Your task to perform on an android device: open app "VLC for Android" (install if not already installed), go to login, and select forgot password Image 0: 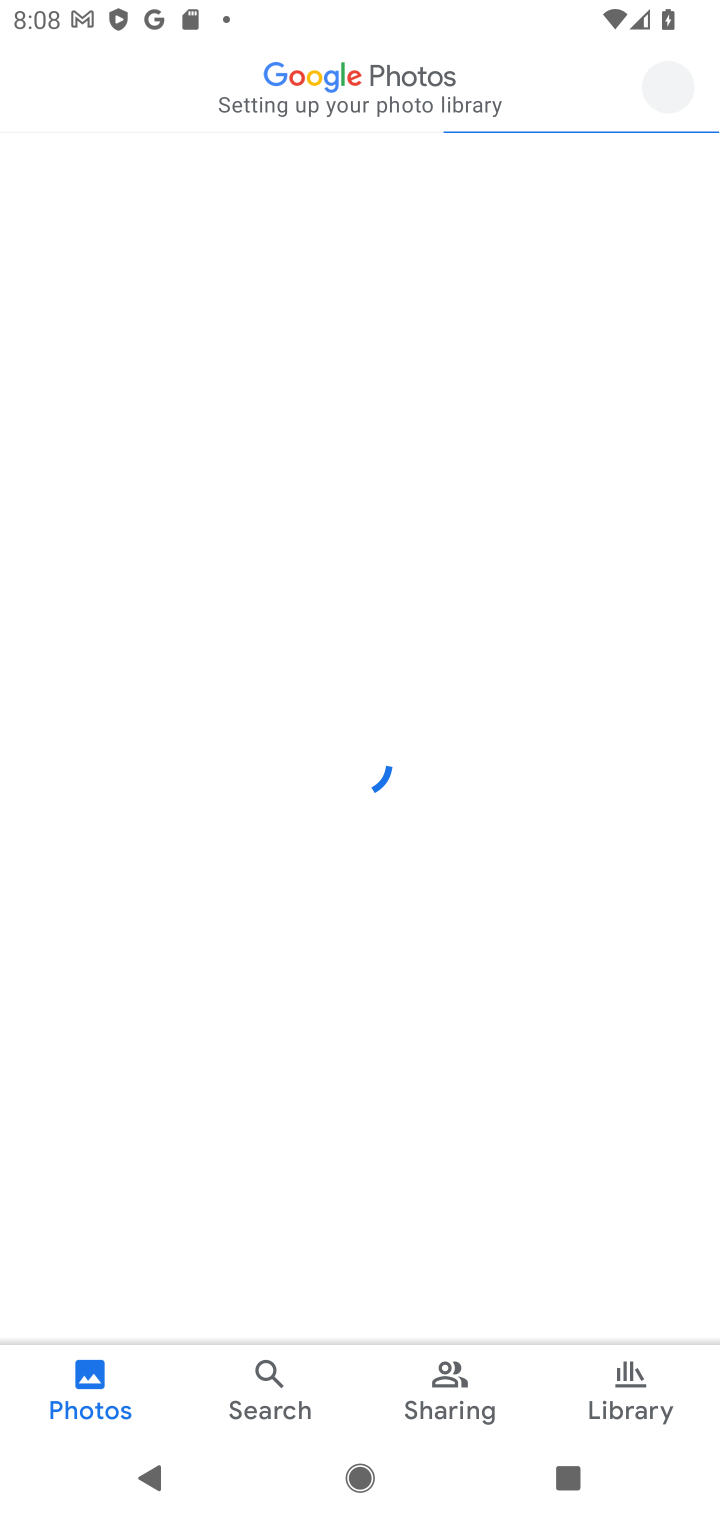
Step 0: press home button
Your task to perform on an android device: open app "VLC for Android" (install if not already installed), go to login, and select forgot password Image 1: 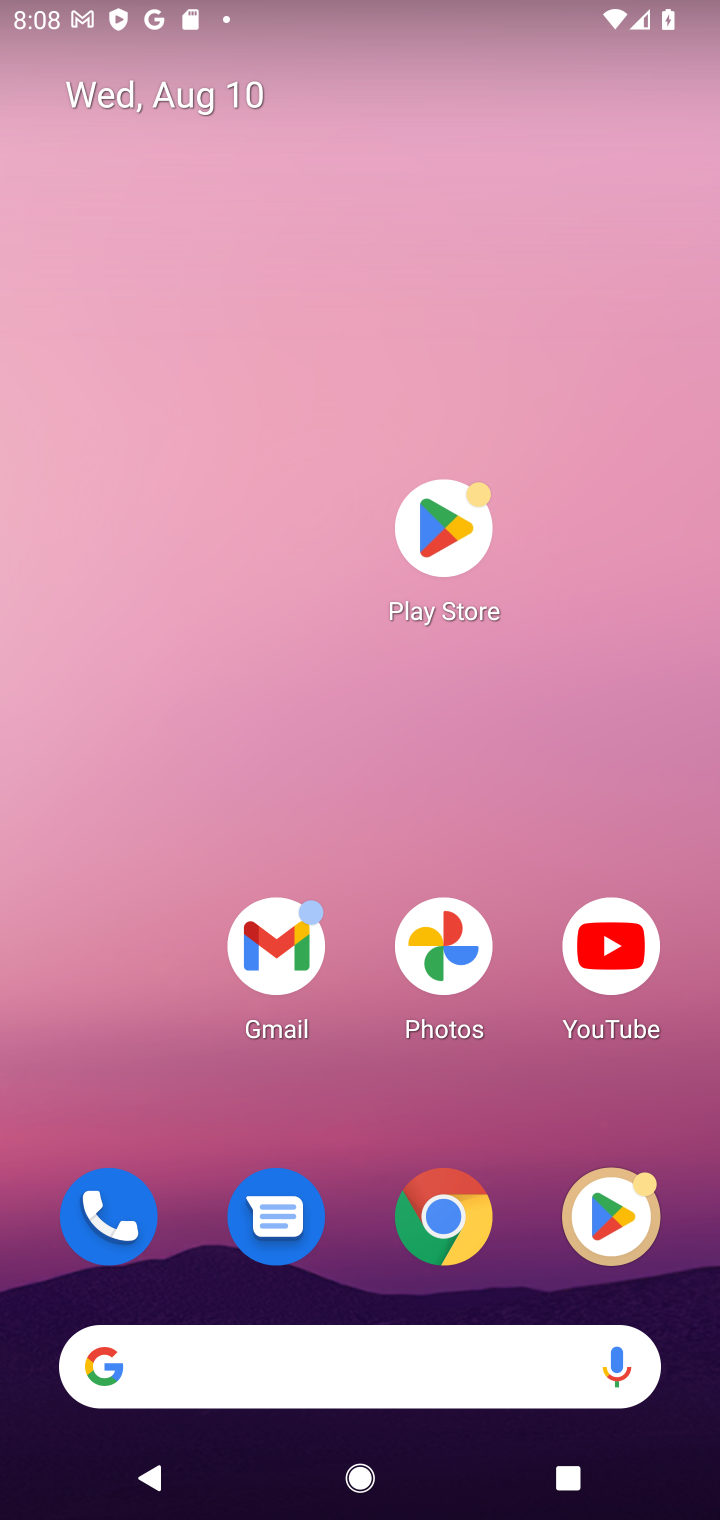
Step 1: click (447, 528)
Your task to perform on an android device: open app "VLC for Android" (install if not already installed), go to login, and select forgot password Image 2: 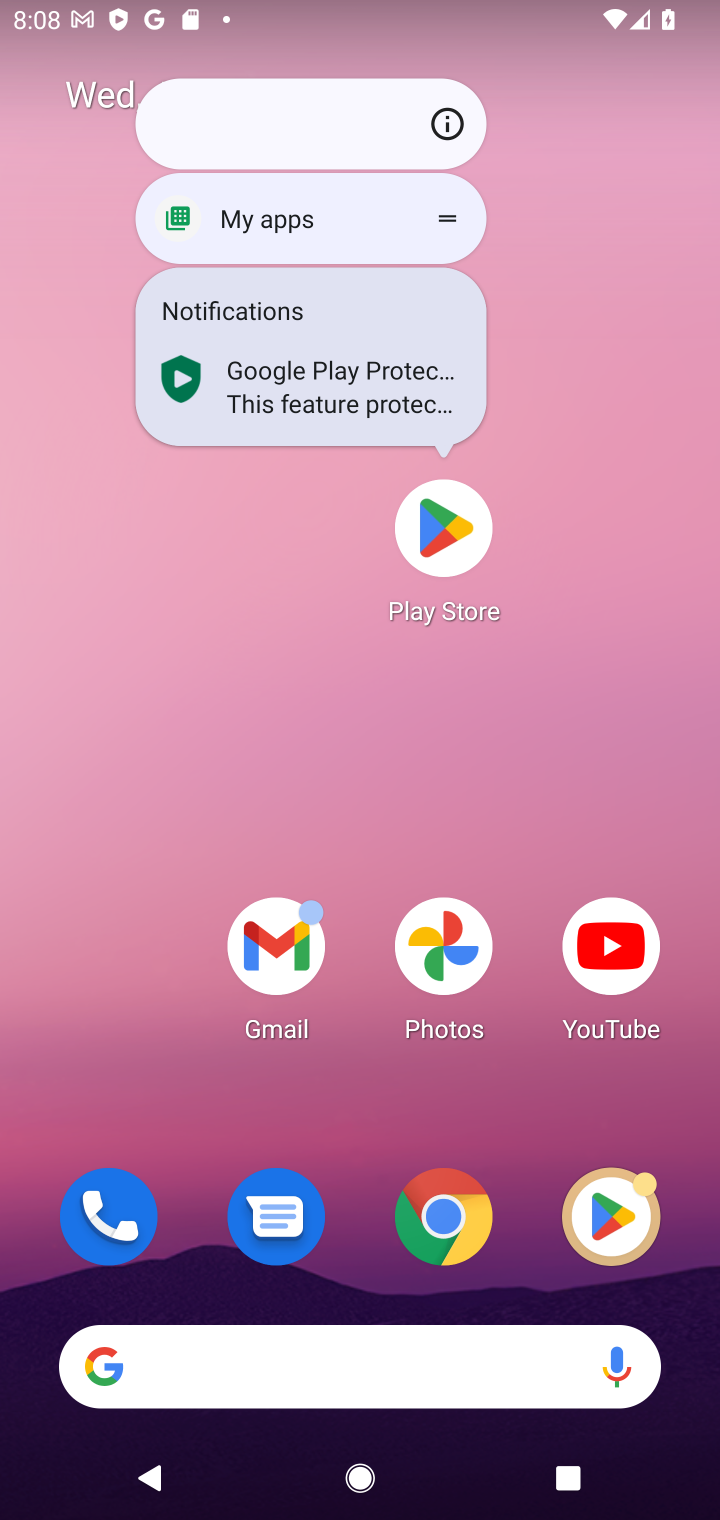
Step 2: click (617, 1214)
Your task to perform on an android device: open app "VLC for Android" (install if not already installed), go to login, and select forgot password Image 3: 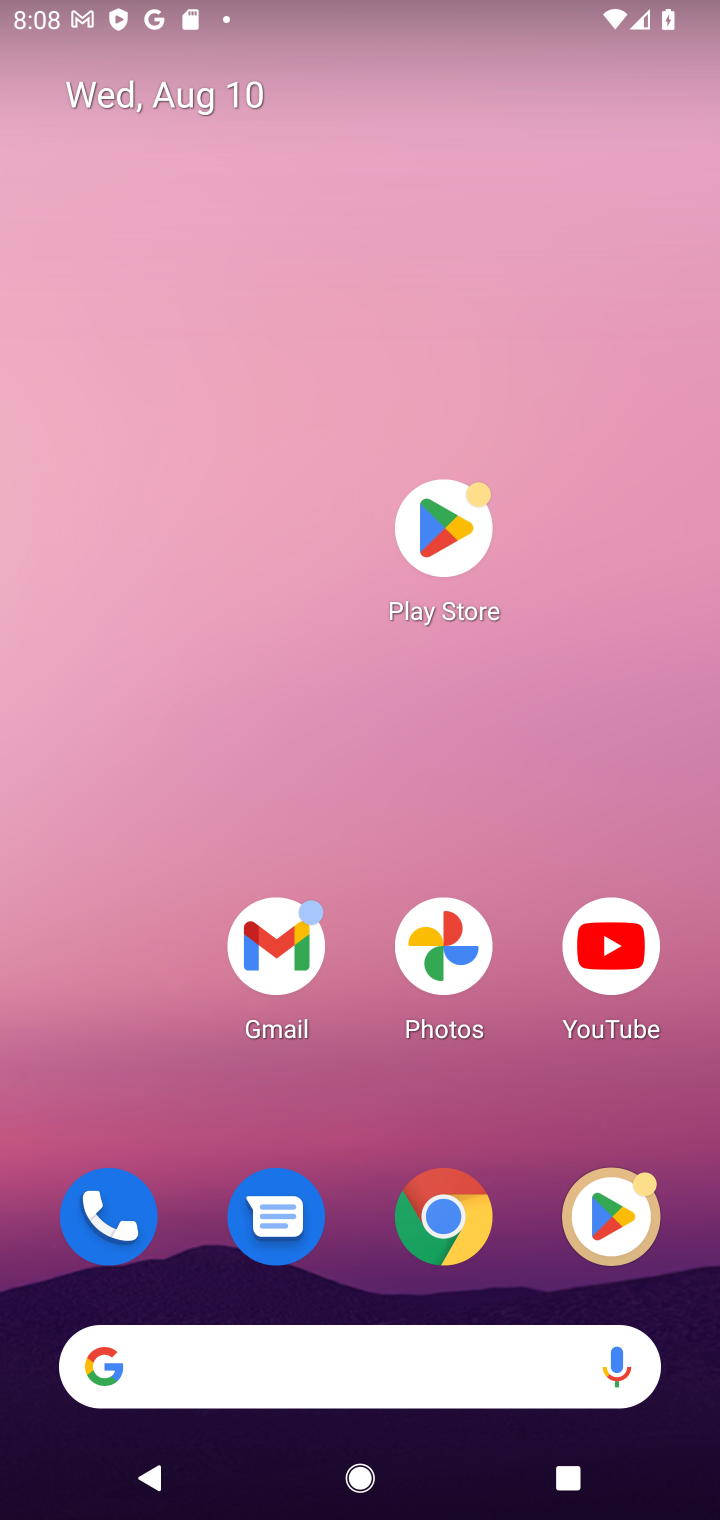
Step 3: click (608, 1221)
Your task to perform on an android device: open app "VLC for Android" (install if not already installed), go to login, and select forgot password Image 4: 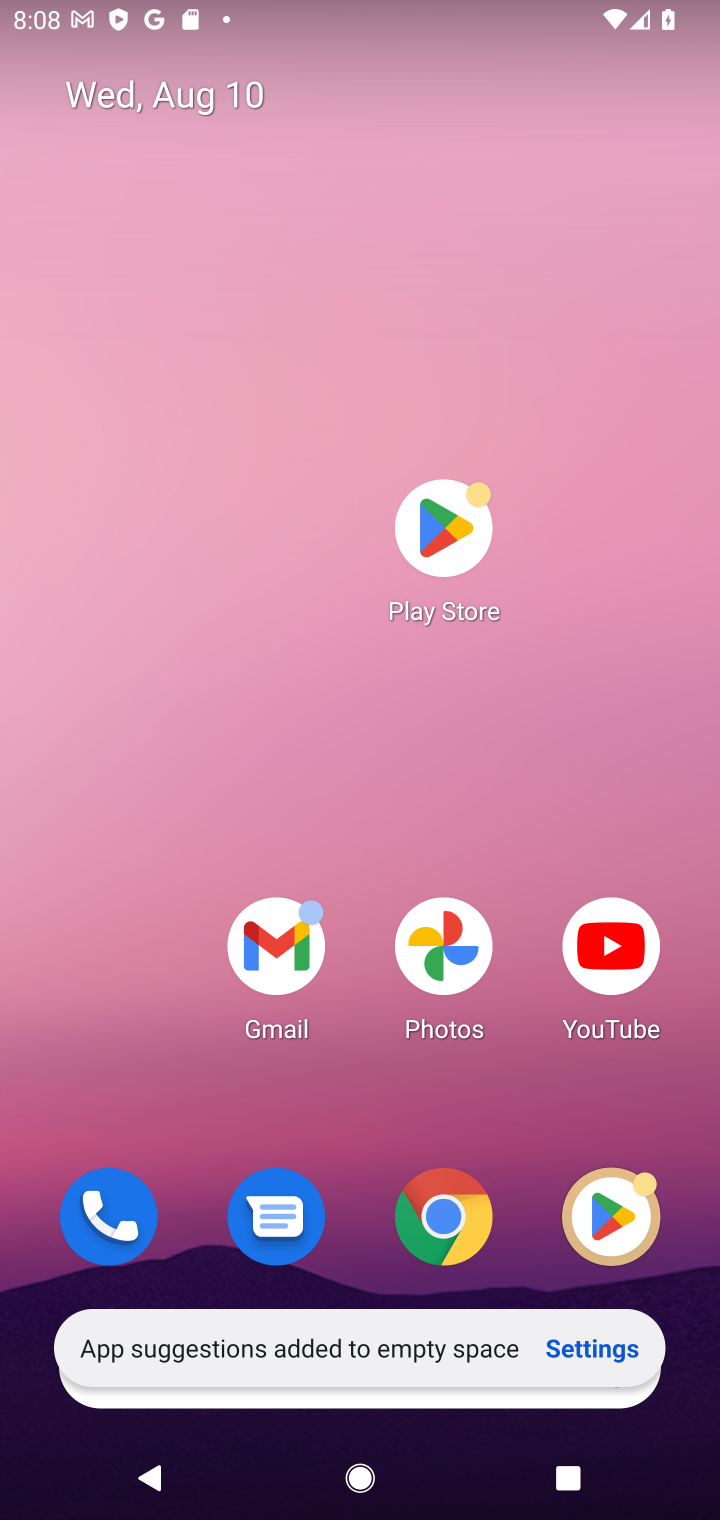
Step 4: click (608, 1223)
Your task to perform on an android device: open app "VLC for Android" (install if not already installed), go to login, and select forgot password Image 5: 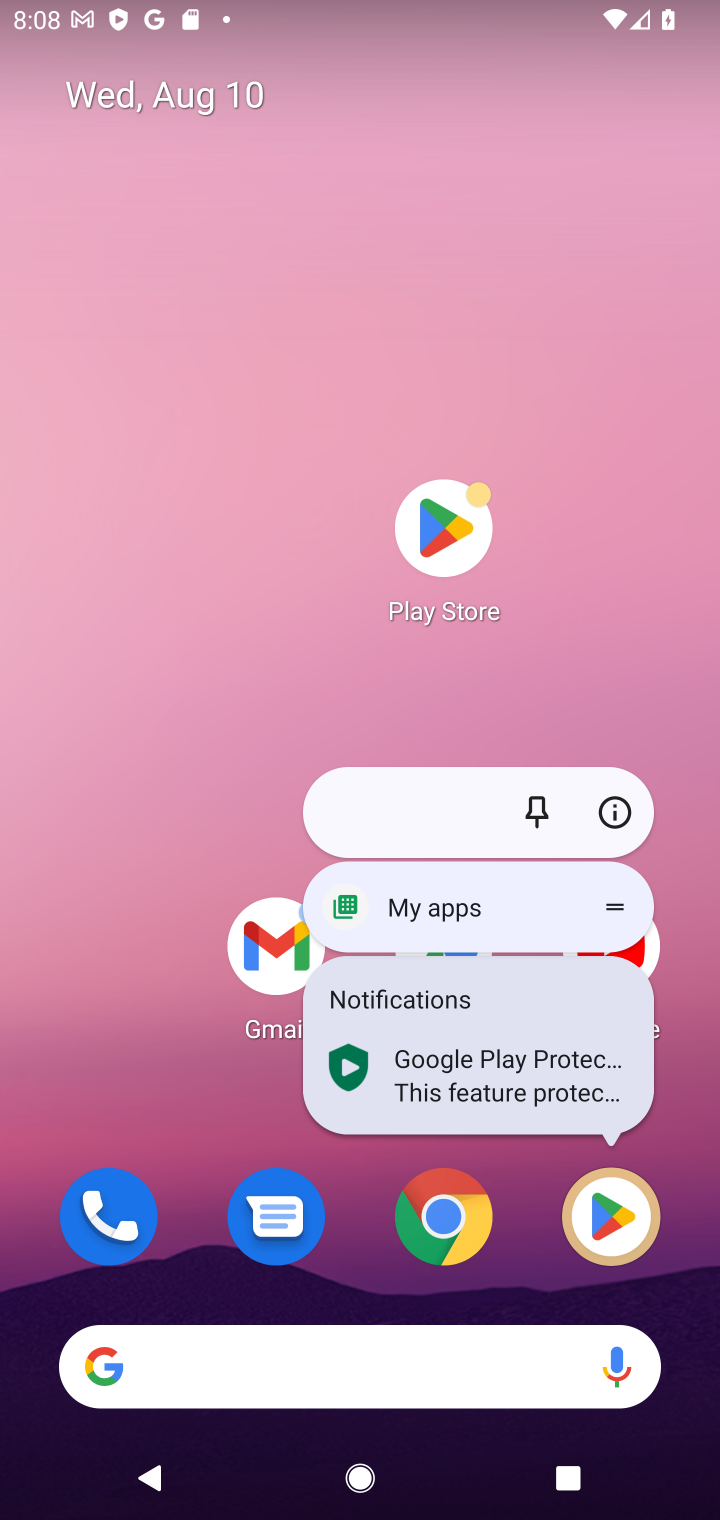
Step 5: click (608, 1223)
Your task to perform on an android device: open app "VLC for Android" (install if not already installed), go to login, and select forgot password Image 6: 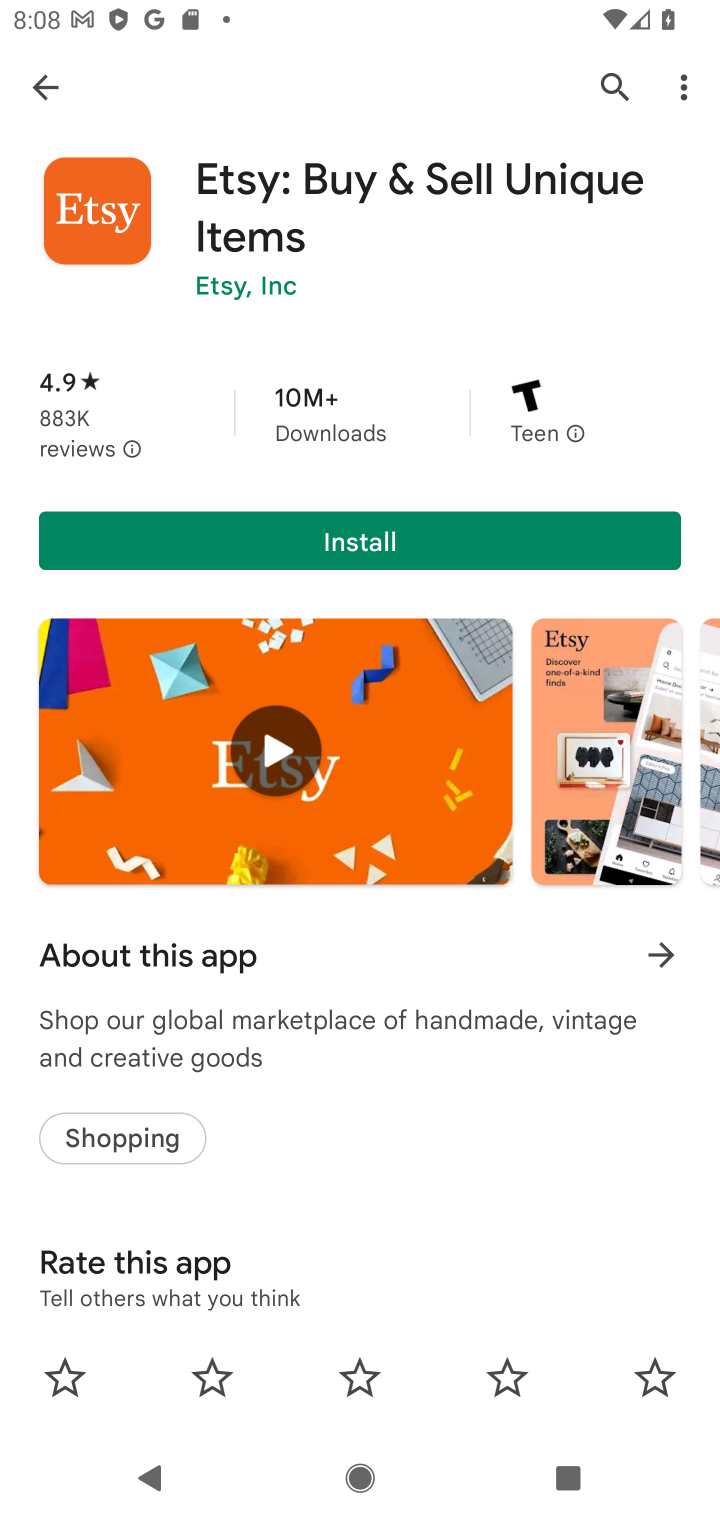
Step 6: click (631, 88)
Your task to perform on an android device: open app "VLC for Android" (install if not already installed), go to login, and select forgot password Image 7: 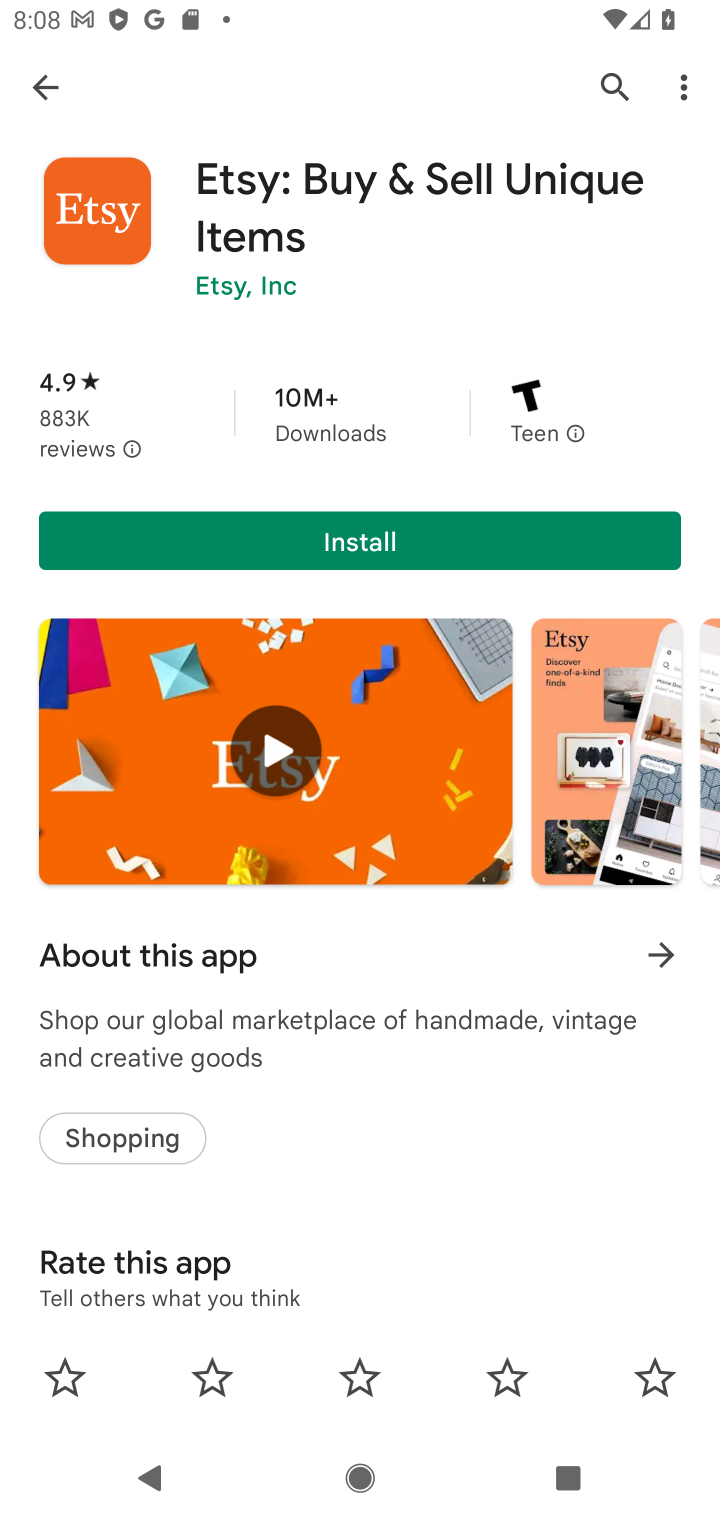
Step 7: click (606, 79)
Your task to perform on an android device: open app "VLC for Android" (install if not already installed), go to login, and select forgot password Image 8: 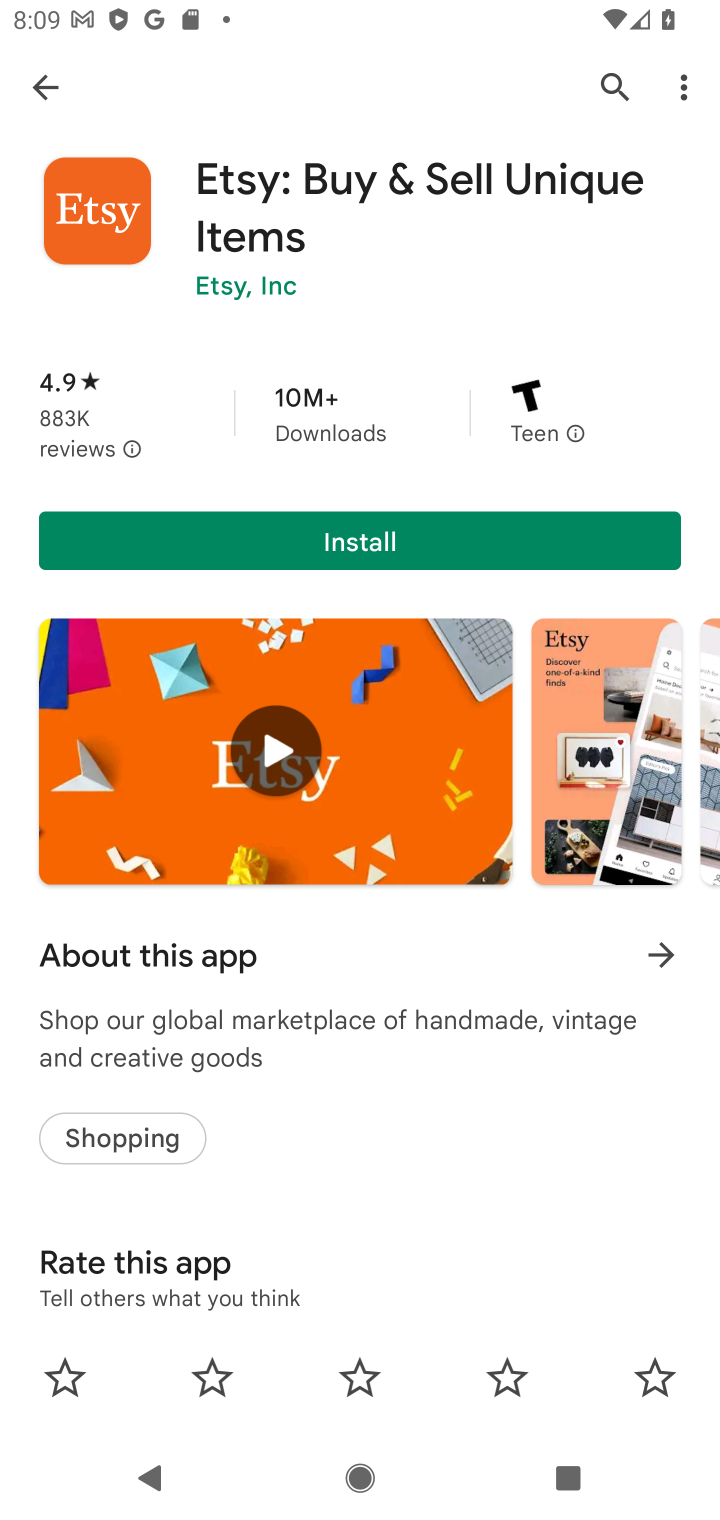
Step 8: click (606, 79)
Your task to perform on an android device: open app "VLC for Android" (install if not already installed), go to login, and select forgot password Image 9: 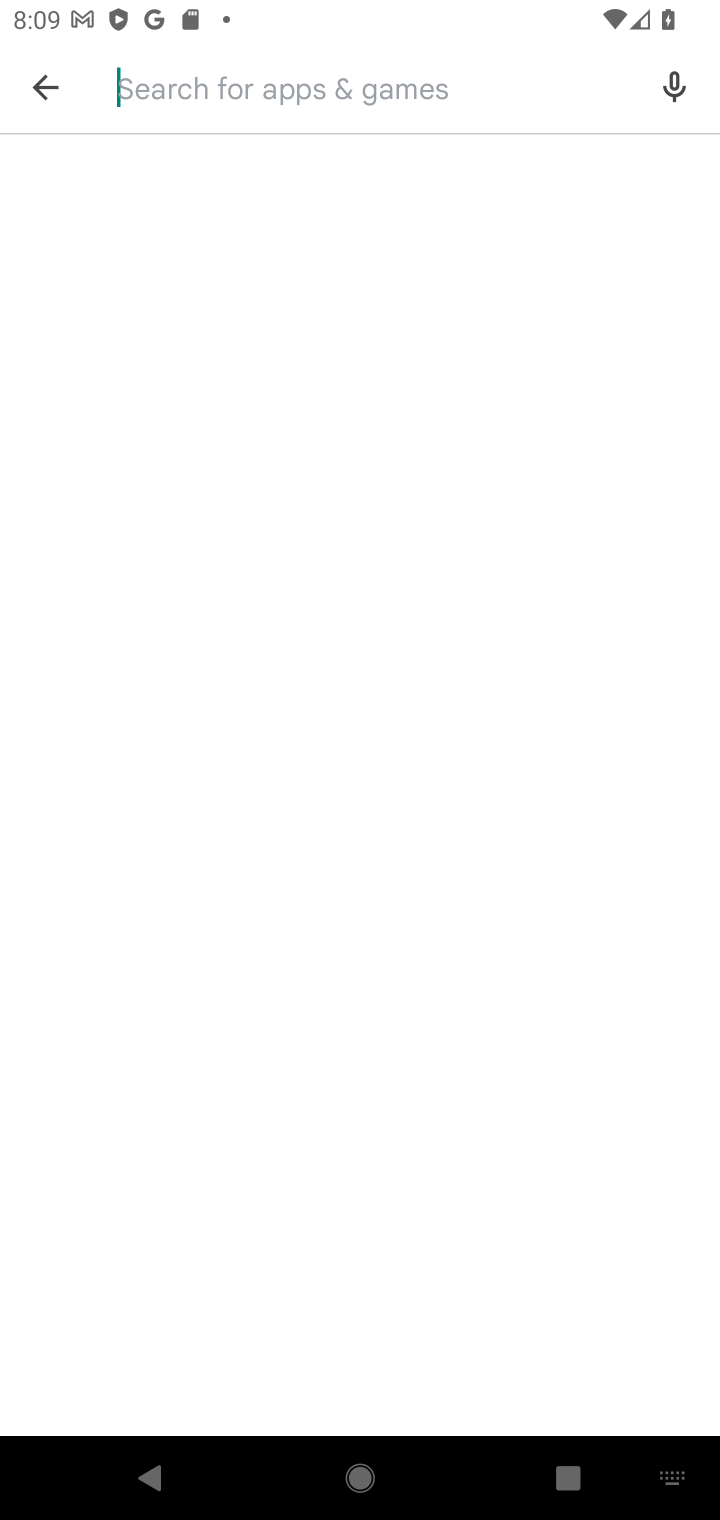
Step 9: type "VLC for Android"
Your task to perform on an android device: open app "VLC for Android" (install if not already installed), go to login, and select forgot password Image 10: 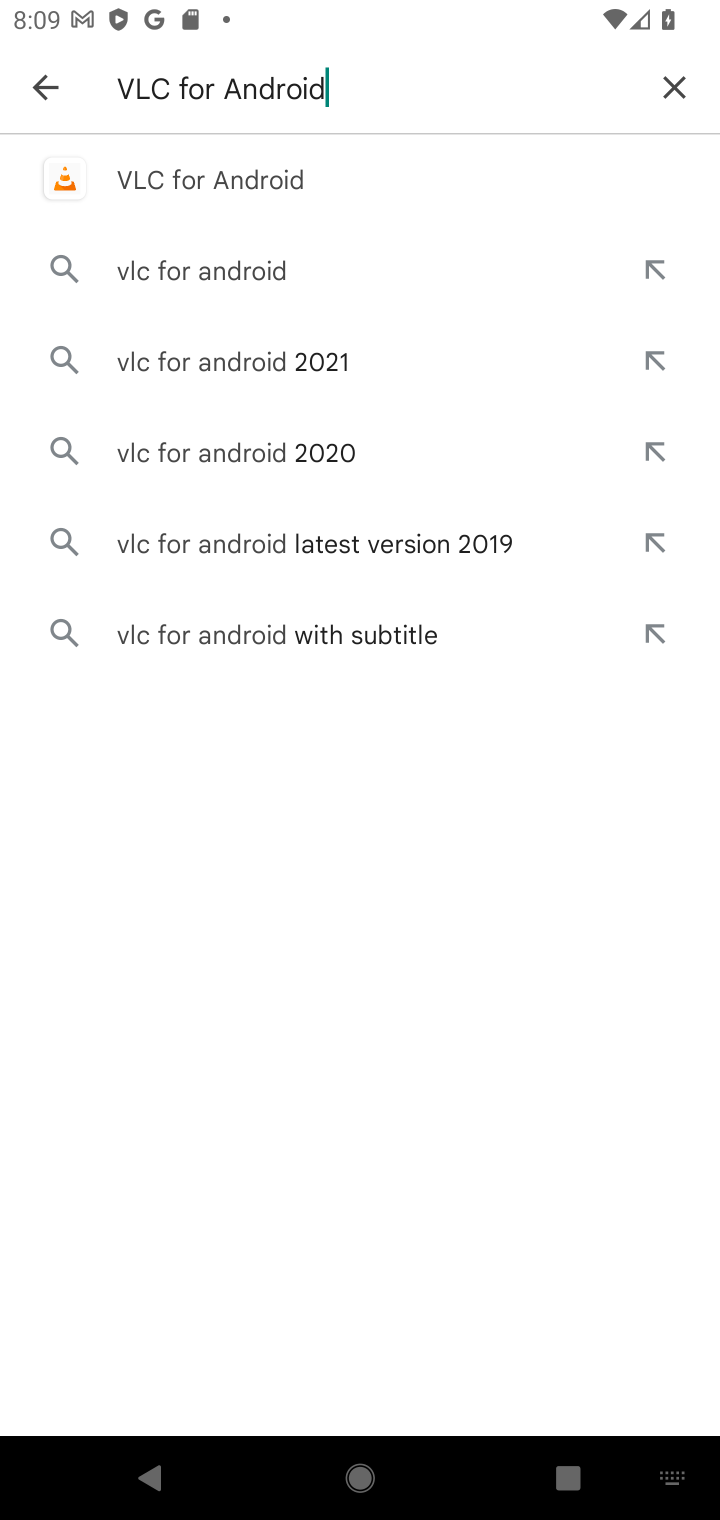
Step 10: click (245, 183)
Your task to perform on an android device: open app "VLC for Android" (install if not already installed), go to login, and select forgot password Image 11: 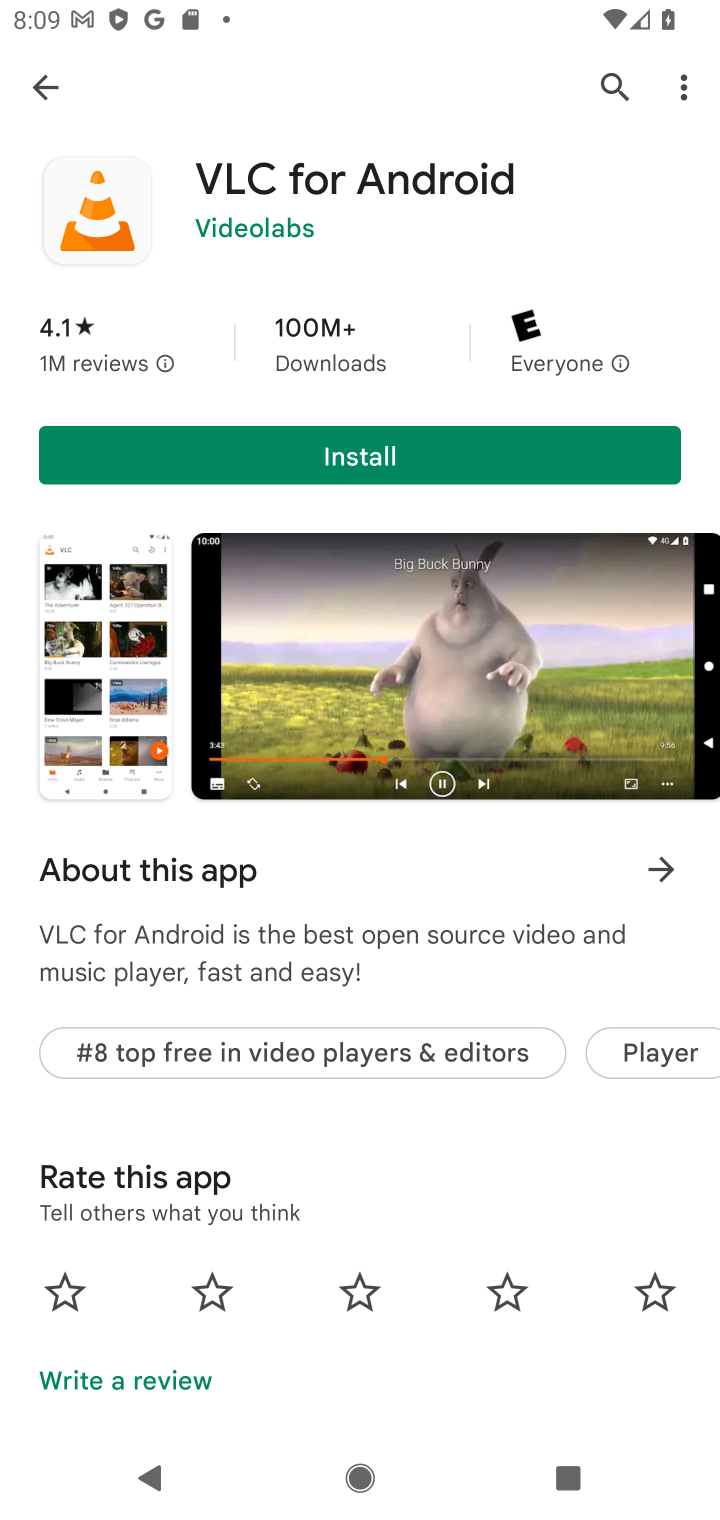
Step 11: click (355, 461)
Your task to perform on an android device: open app "VLC for Android" (install if not already installed), go to login, and select forgot password Image 12: 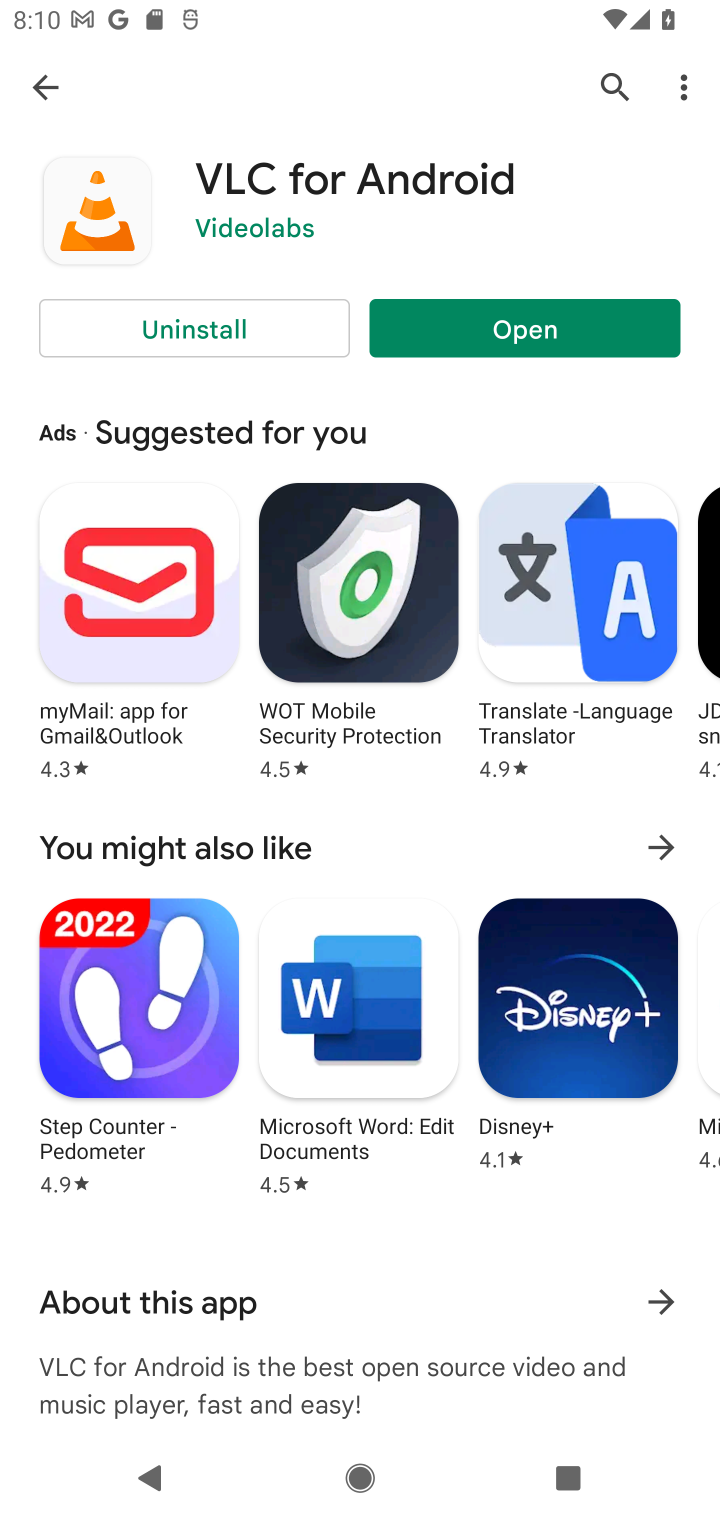
Step 12: click (539, 347)
Your task to perform on an android device: open app "VLC for Android" (install if not already installed), go to login, and select forgot password Image 13: 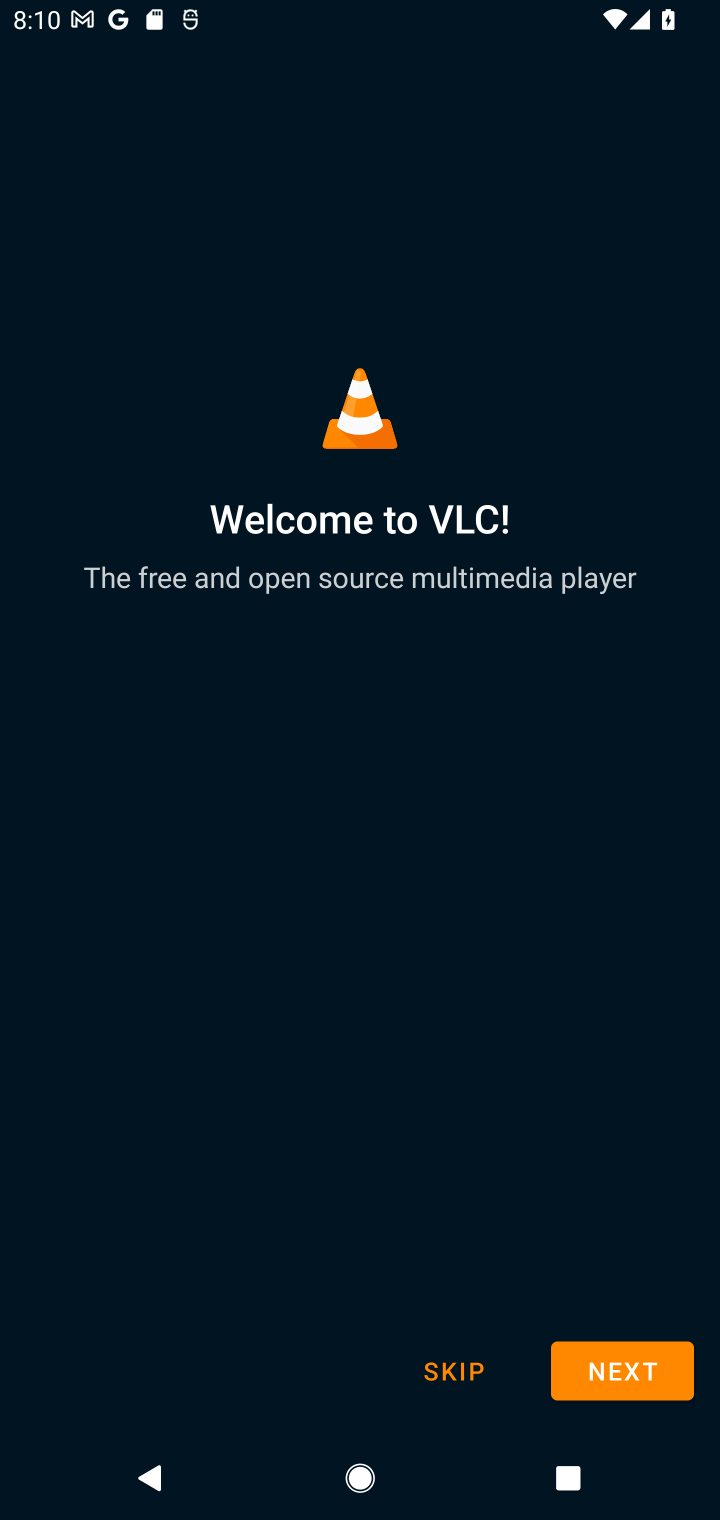
Step 13: click (587, 1373)
Your task to perform on an android device: open app "VLC for Android" (install if not already installed), go to login, and select forgot password Image 14: 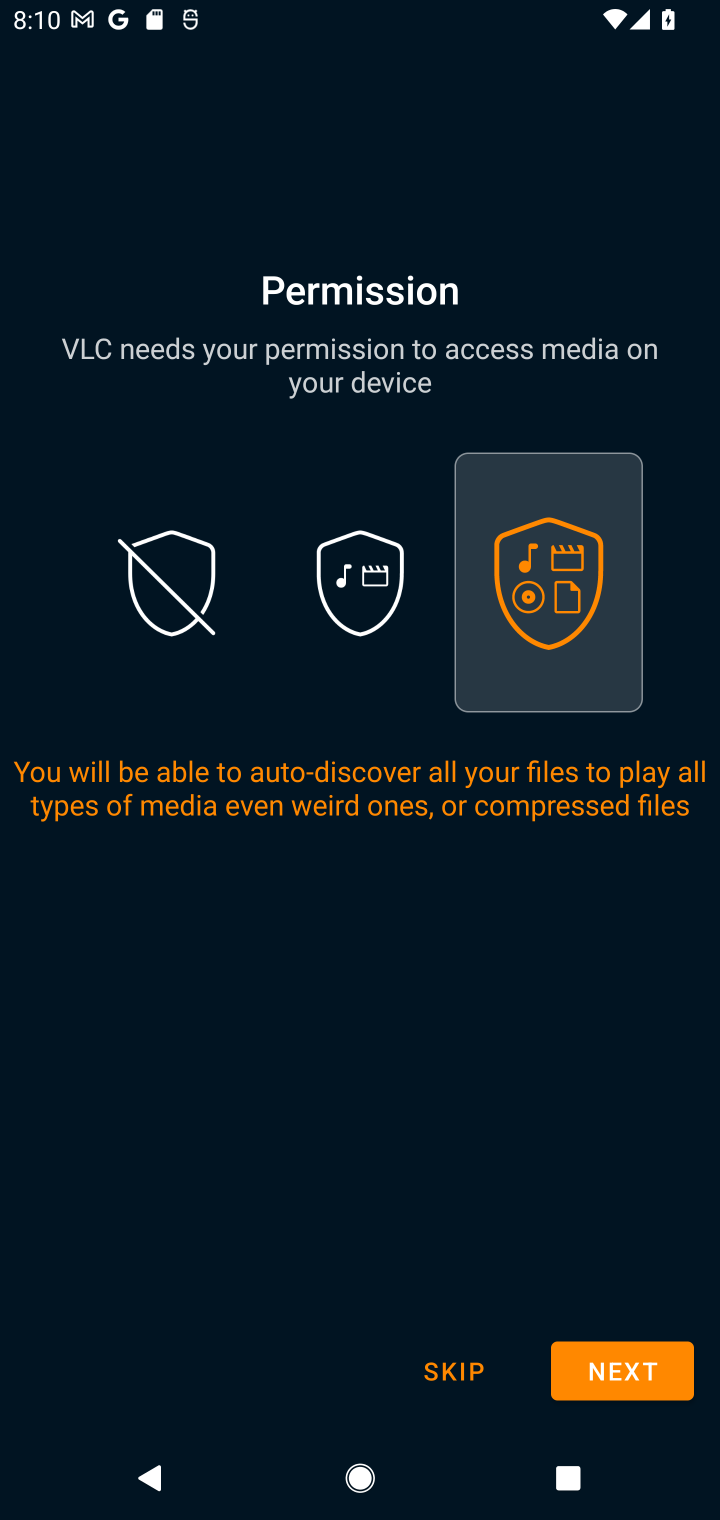
Step 14: click (609, 1371)
Your task to perform on an android device: open app "VLC for Android" (install if not already installed), go to login, and select forgot password Image 15: 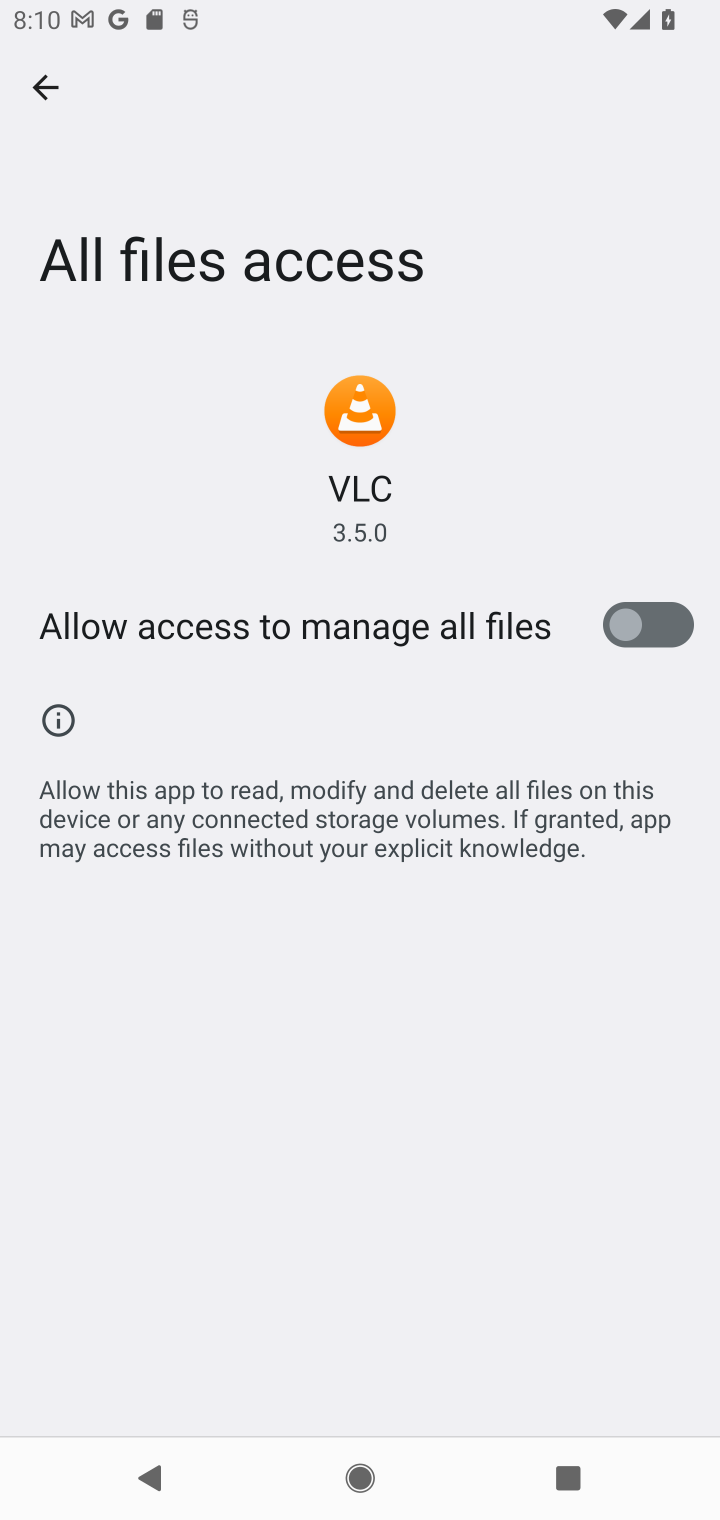
Step 15: task complete